Your task to perform on an android device: Go to Google maps Image 0: 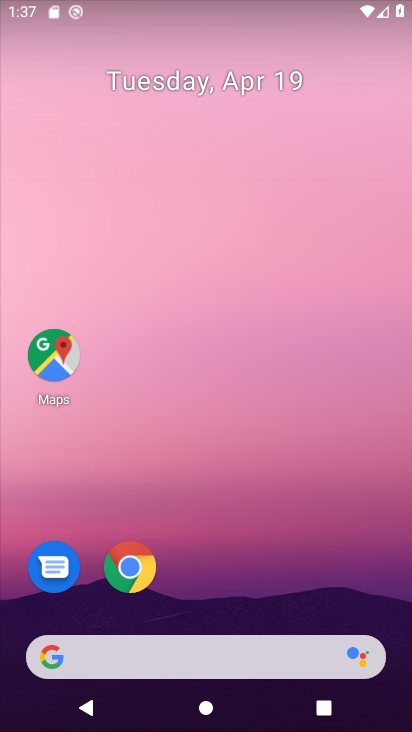
Step 0: drag from (240, 559) to (242, 256)
Your task to perform on an android device: Go to Google maps Image 1: 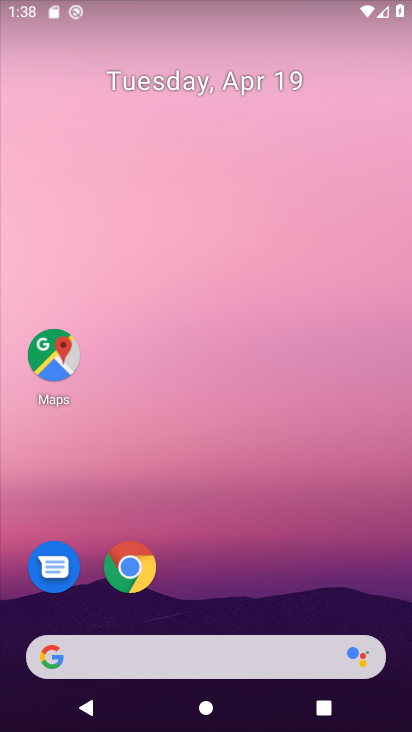
Step 1: click (55, 356)
Your task to perform on an android device: Go to Google maps Image 2: 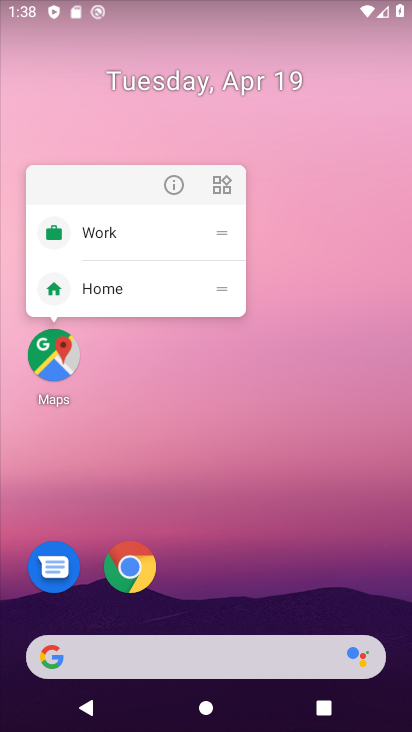
Step 2: click (57, 359)
Your task to perform on an android device: Go to Google maps Image 3: 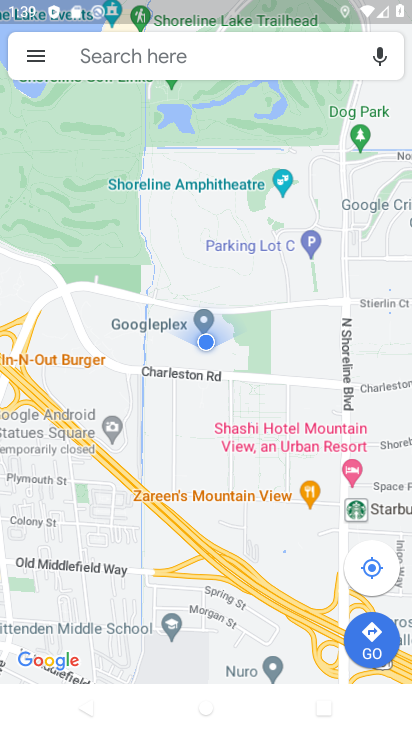
Step 3: task complete